Your task to perform on an android device: see sites visited before in the chrome app Image 0: 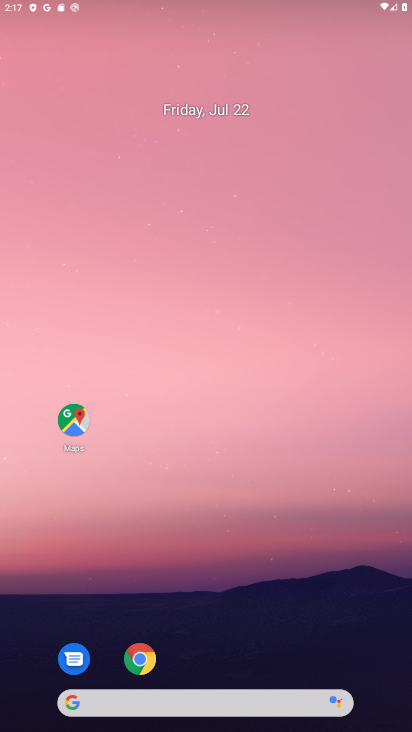
Step 0: drag from (194, 637) to (204, 68)
Your task to perform on an android device: see sites visited before in the chrome app Image 1: 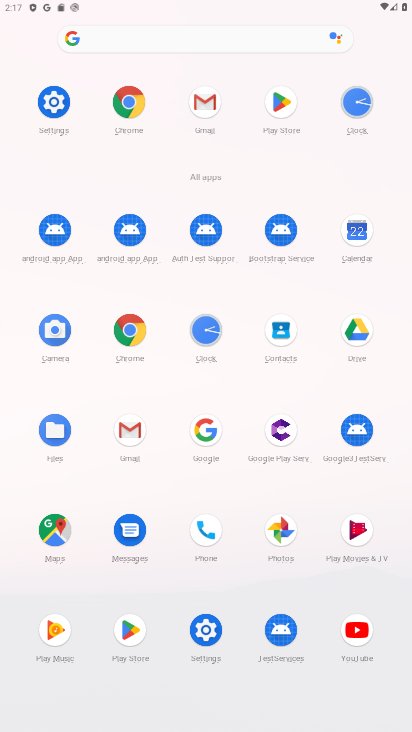
Step 1: click (125, 353)
Your task to perform on an android device: see sites visited before in the chrome app Image 2: 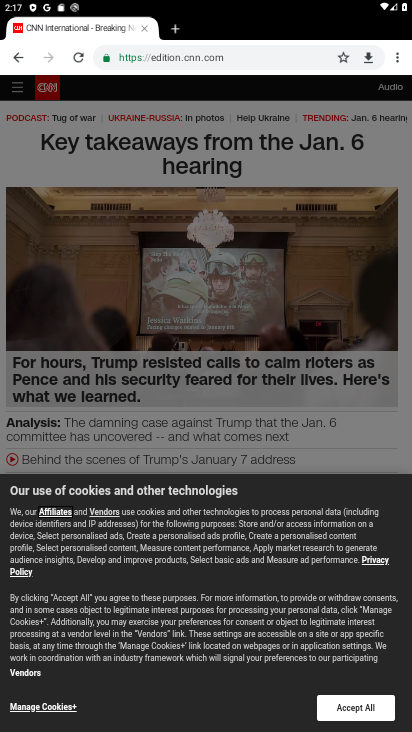
Step 2: click (392, 53)
Your task to perform on an android device: see sites visited before in the chrome app Image 3: 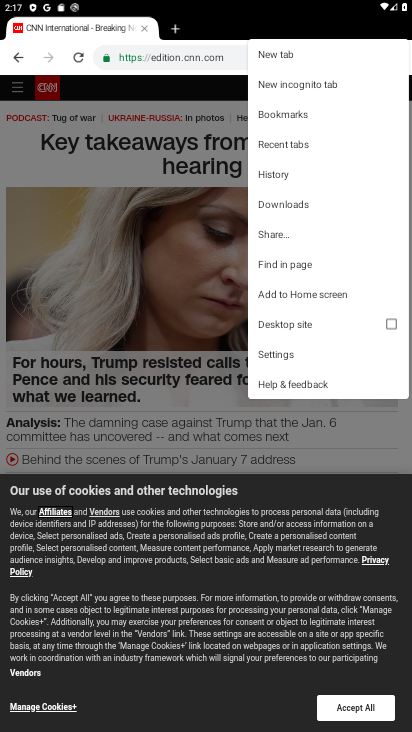
Step 3: click (271, 178)
Your task to perform on an android device: see sites visited before in the chrome app Image 4: 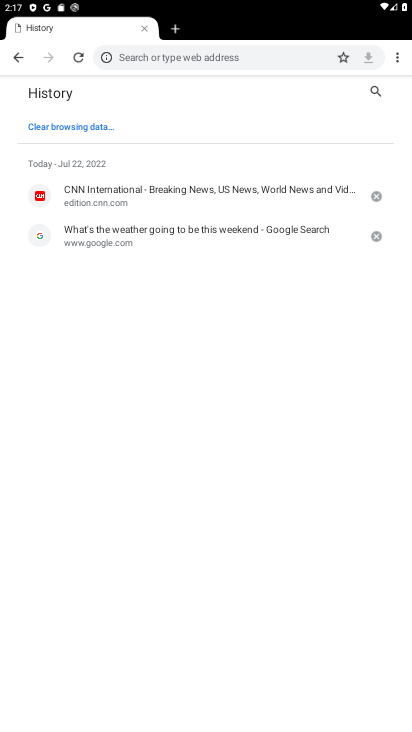
Step 4: task complete